Your task to perform on an android device: Is it going to rain tomorrow? Image 0: 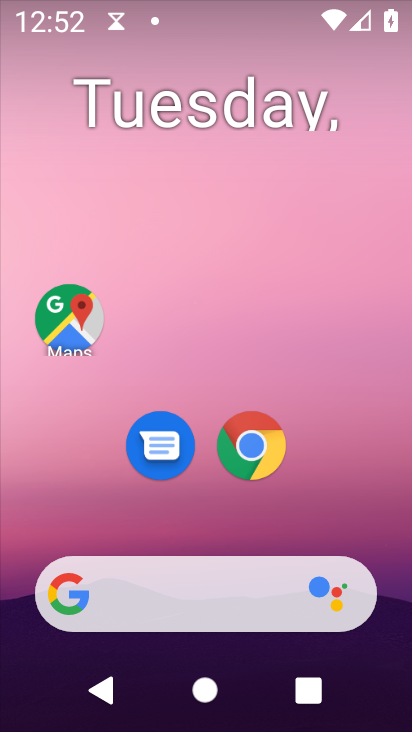
Step 0: drag from (282, 479) to (297, 57)
Your task to perform on an android device: Is it going to rain tomorrow? Image 1: 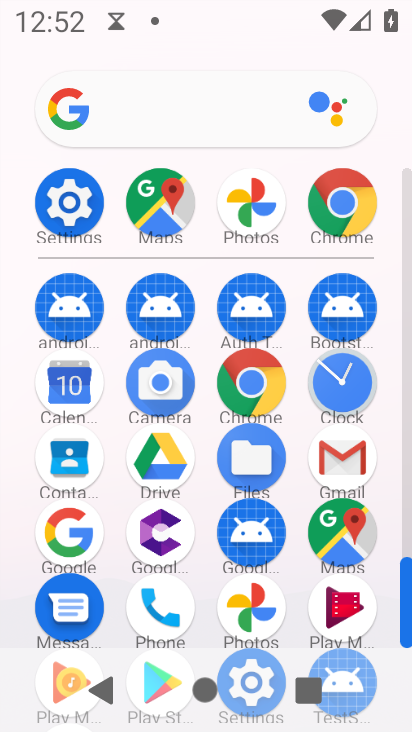
Step 1: click (252, 384)
Your task to perform on an android device: Is it going to rain tomorrow? Image 2: 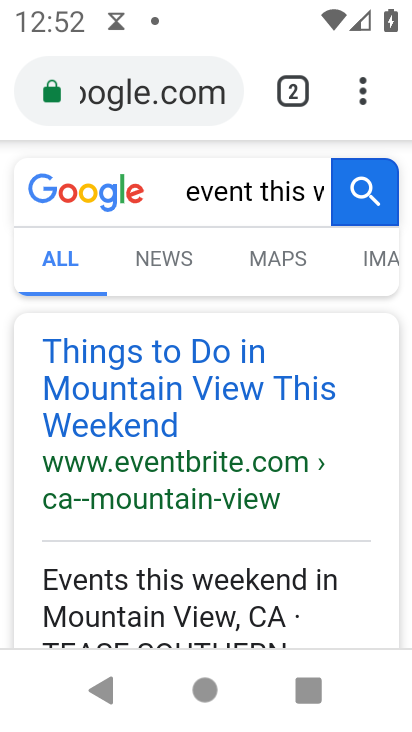
Step 2: click (207, 104)
Your task to perform on an android device: Is it going to rain tomorrow? Image 3: 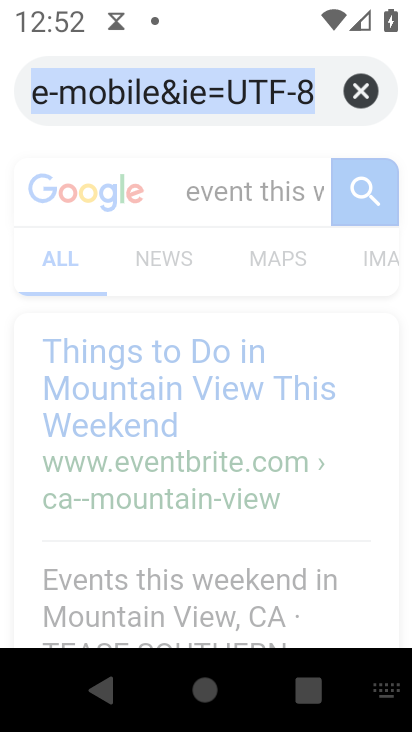
Step 3: click (352, 93)
Your task to perform on an android device: Is it going to rain tomorrow? Image 4: 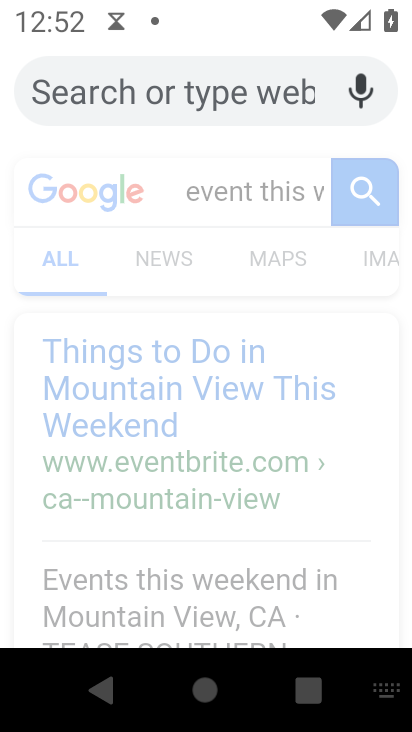
Step 4: click (201, 83)
Your task to perform on an android device: Is it going to rain tomorrow? Image 5: 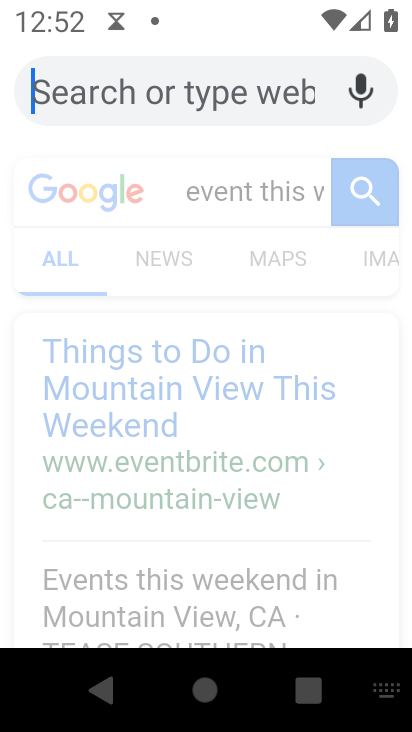
Step 5: type "rain tomorrow"
Your task to perform on an android device: Is it going to rain tomorrow? Image 6: 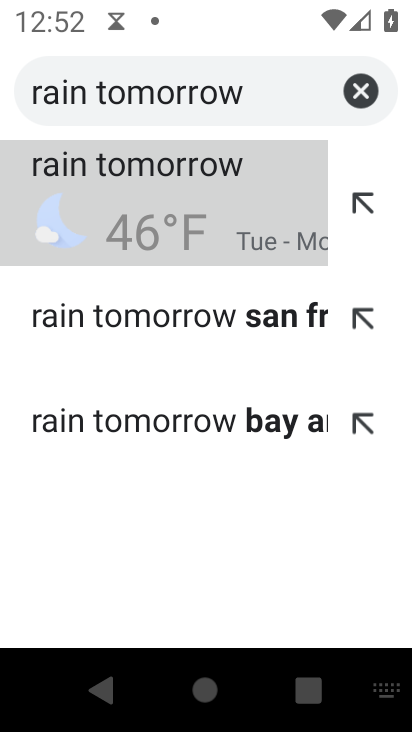
Step 6: click (244, 201)
Your task to perform on an android device: Is it going to rain tomorrow? Image 7: 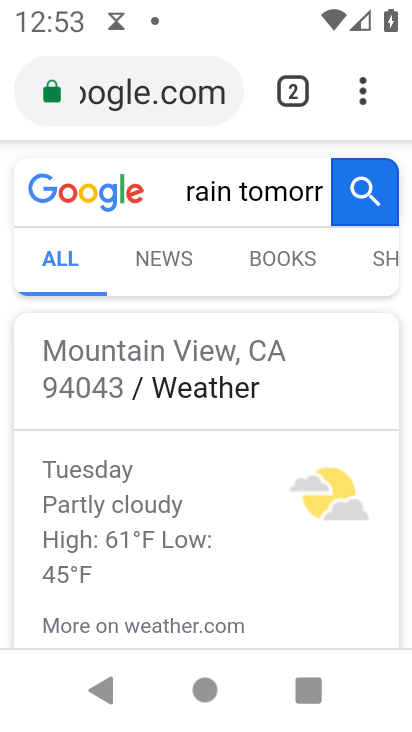
Step 7: task complete